Your task to perform on an android device: Open calendar and show me the third week of next month Image 0: 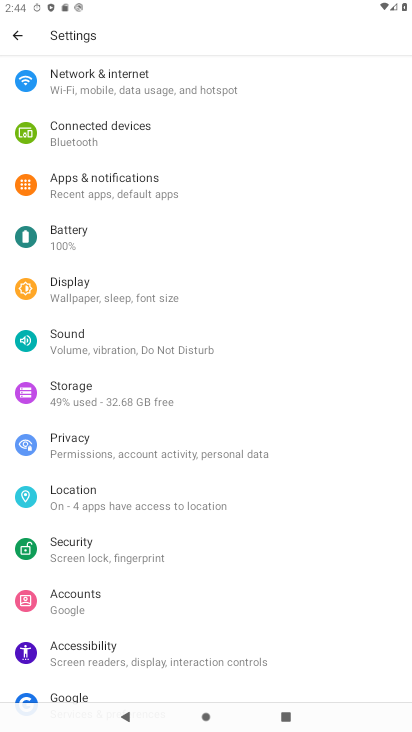
Step 0: press home button
Your task to perform on an android device: Open calendar and show me the third week of next month Image 1: 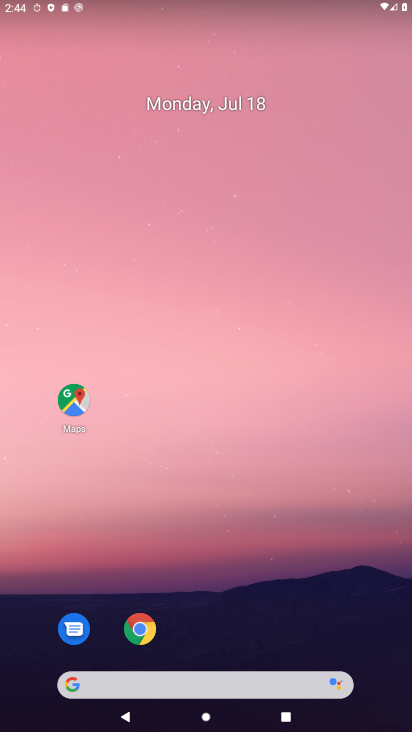
Step 1: drag from (277, 626) to (350, 20)
Your task to perform on an android device: Open calendar and show me the third week of next month Image 2: 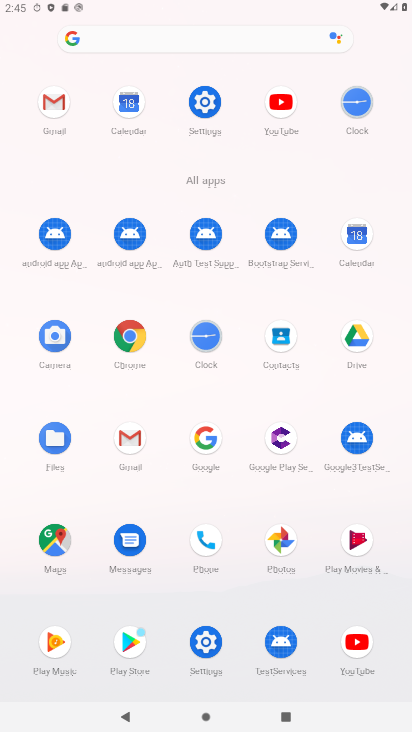
Step 2: click (358, 243)
Your task to perform on an android device: Open calendar and show me the third week of next month Image 3: 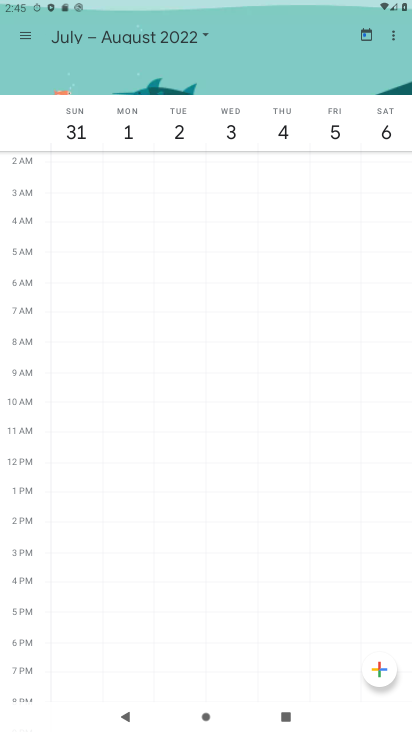
Step 3: task complete